Your task to perform on an android device: Check the settings for the Google Maps app Image 0: 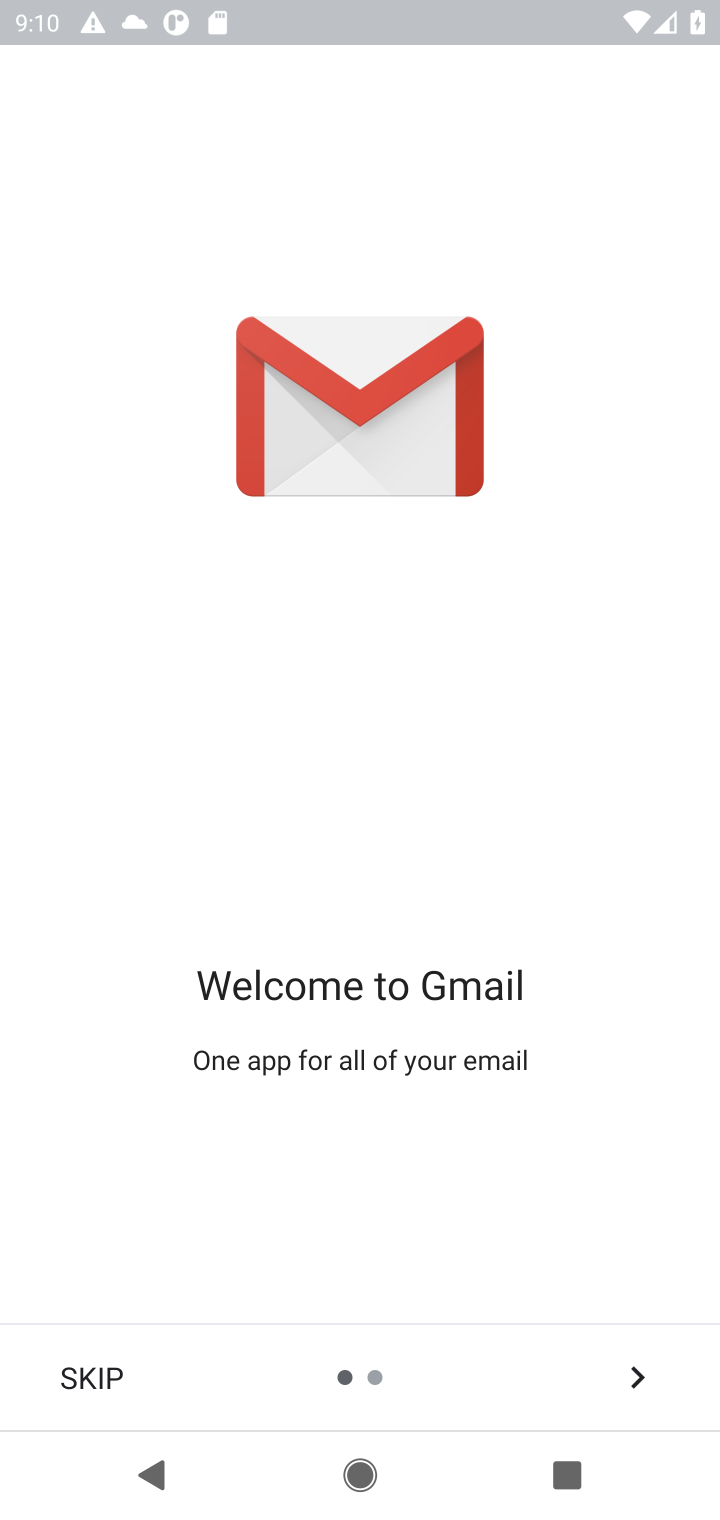
Step 0: press home button
Your task to perform on an android device: Check the settings for the Google Maps app Image 1: 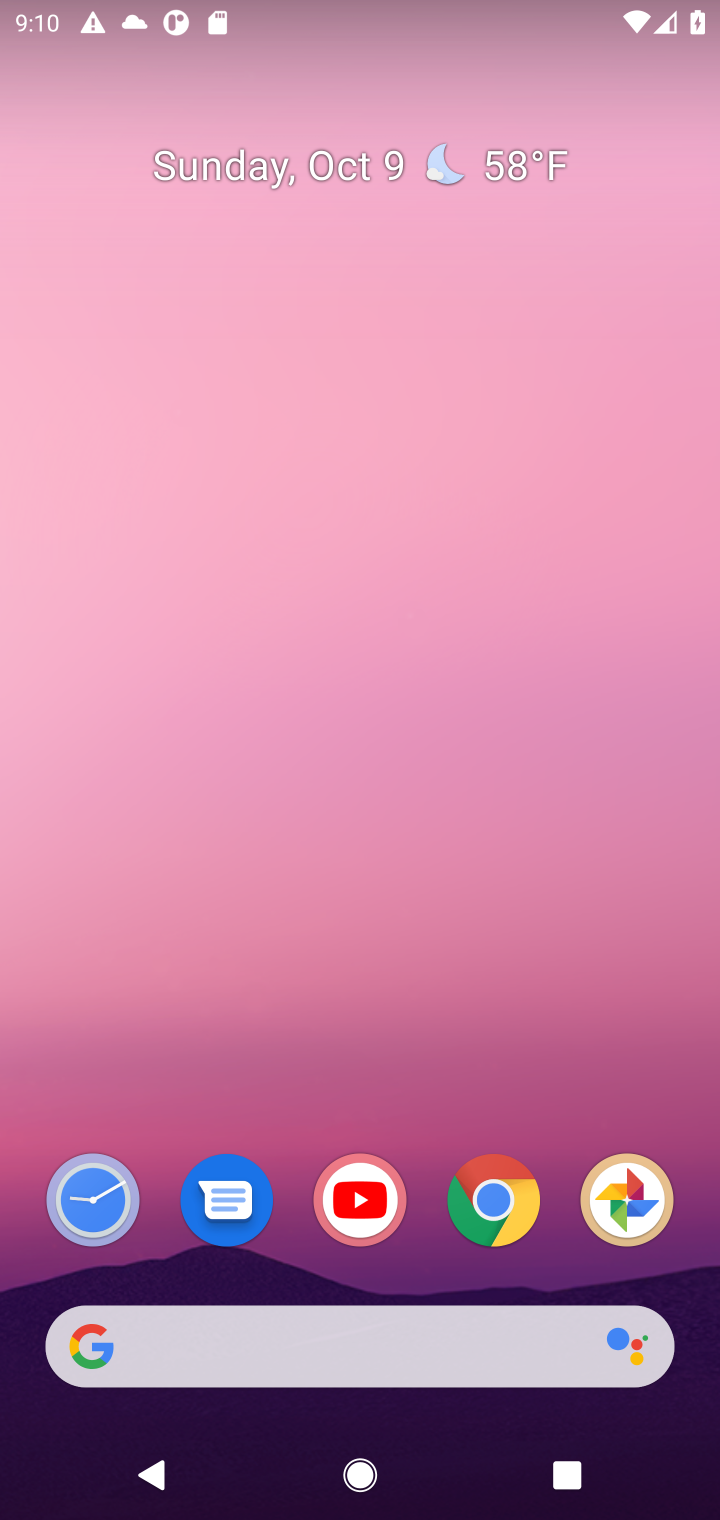
Step 1: drag from (428, 1089) to (495, 142)
Your task to perform on an android device: Check the settings for the Google Maps app Image 2: 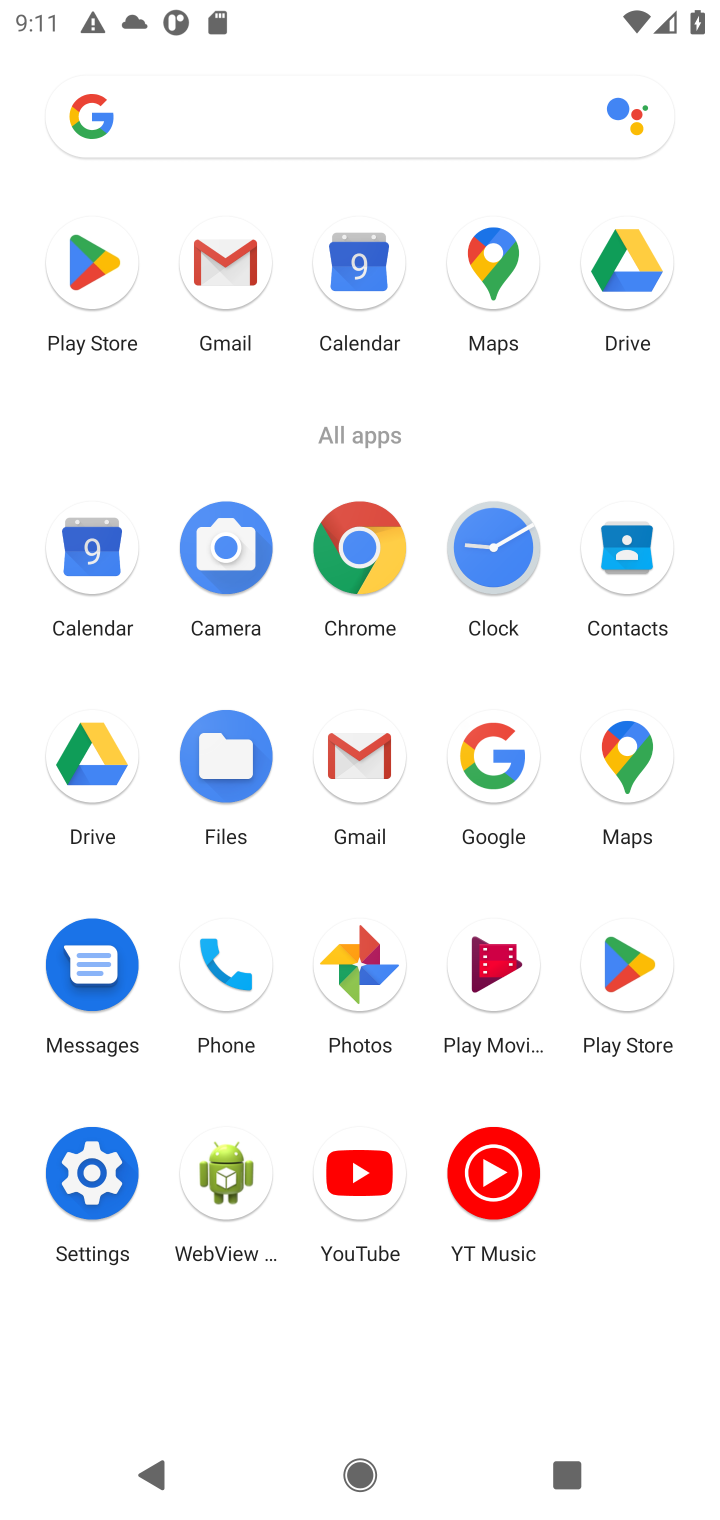
Step 2: click (88, 1167)
Your task to perform on an android device: Check the settings for the Google Maps app Image 3: 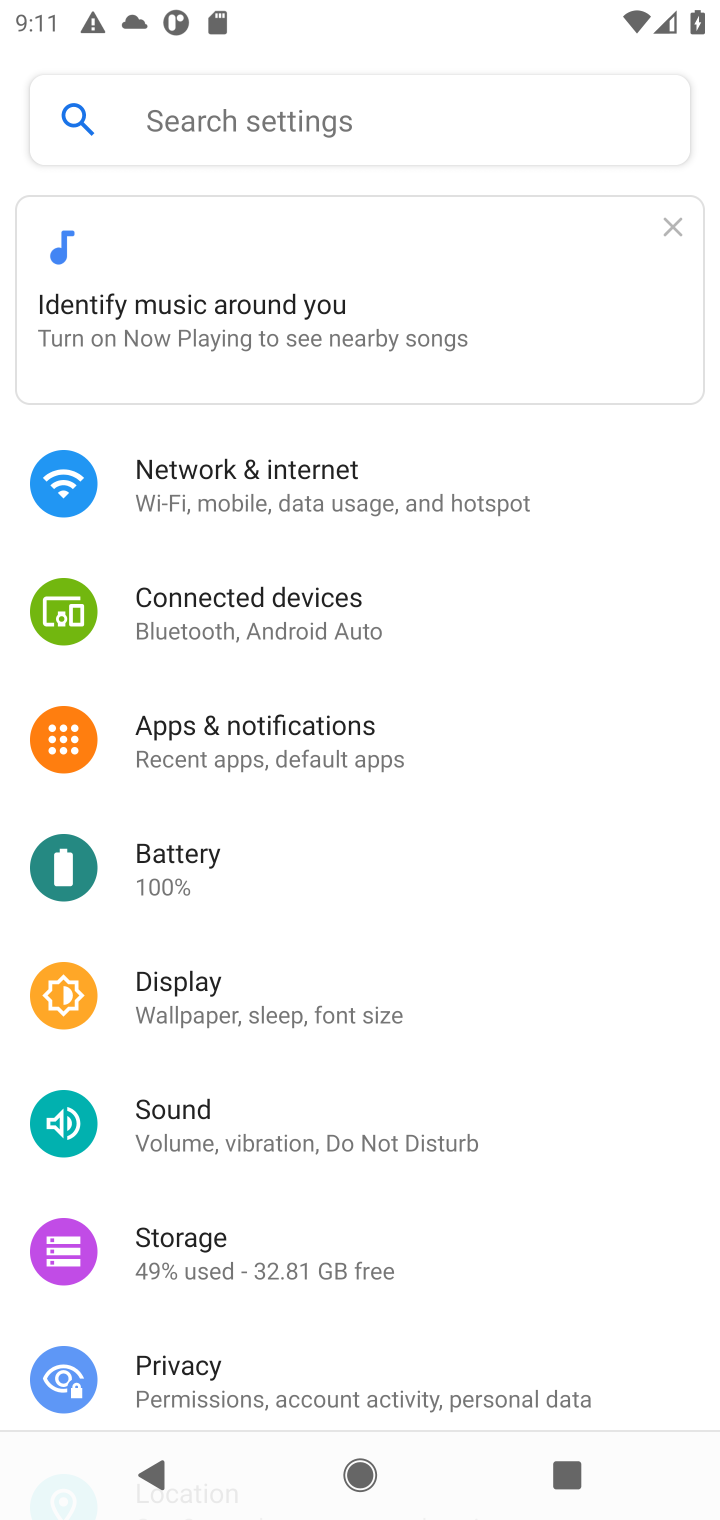
Step 3: press home button
Your task to perform on an android device: Check the settings for the Google Maps app Image 4: 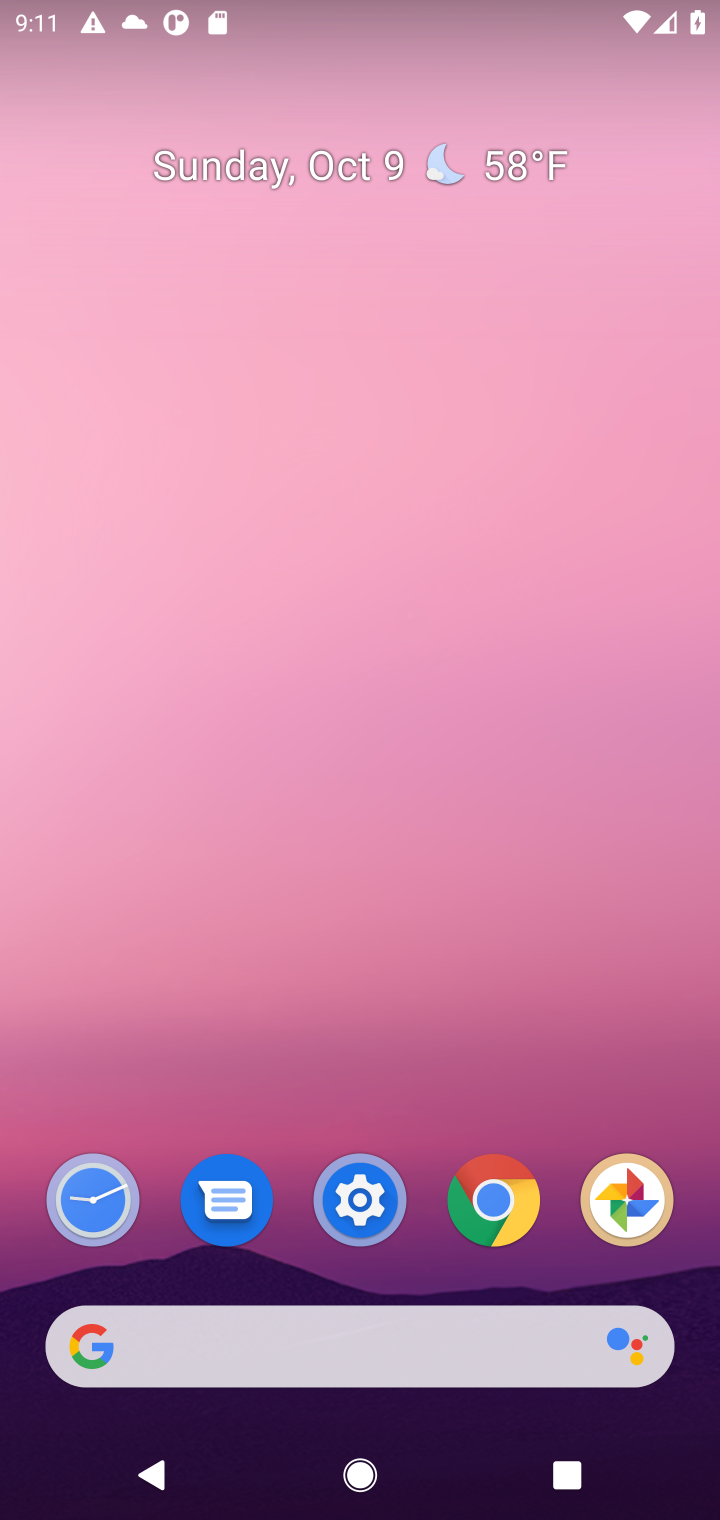
Step 4: drag from (511, 1096) to (503, 147)
Your task to perform on an android device: Check the settings for the Google Maps app Image 5: 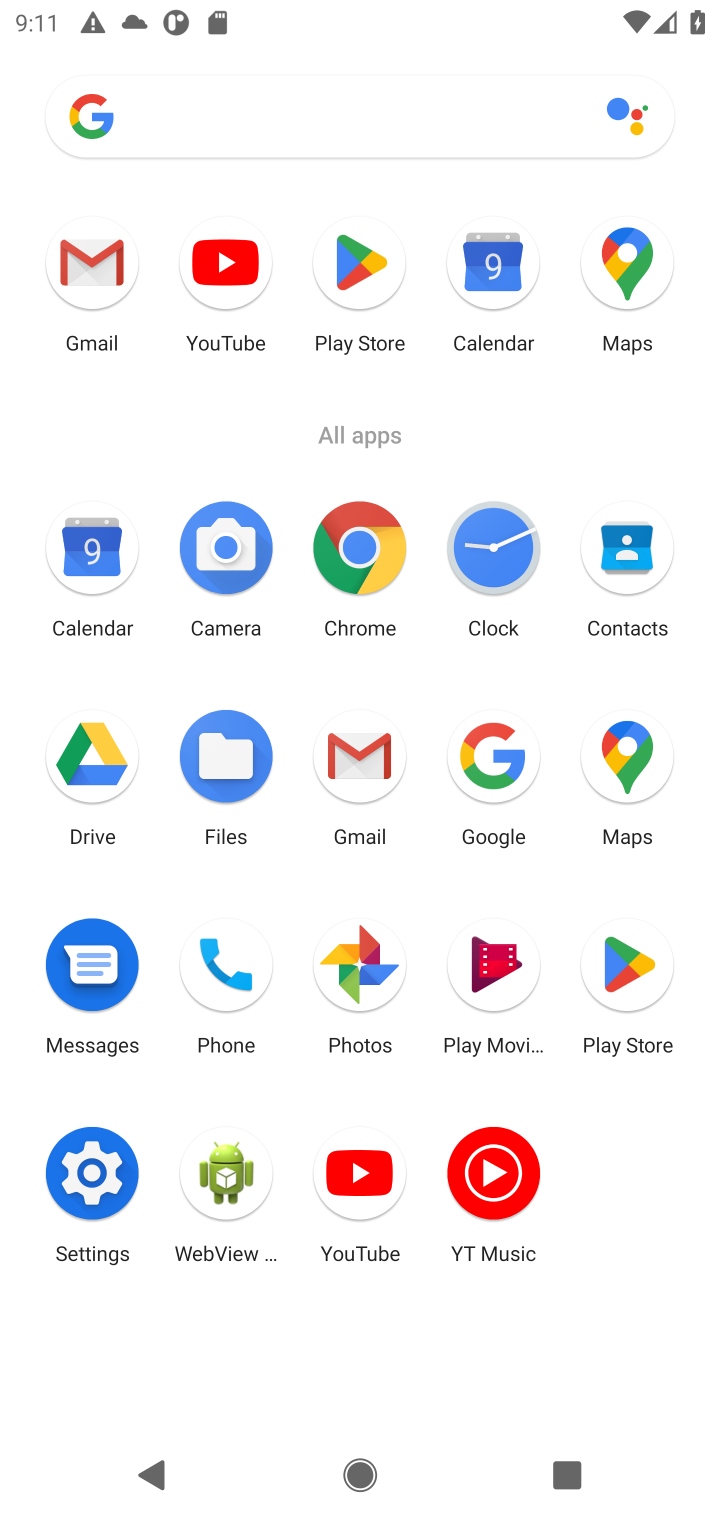
Step 5: click (629, 252)
Your task to perform on an android device: Check the settings for the Google Maps app Image 6: 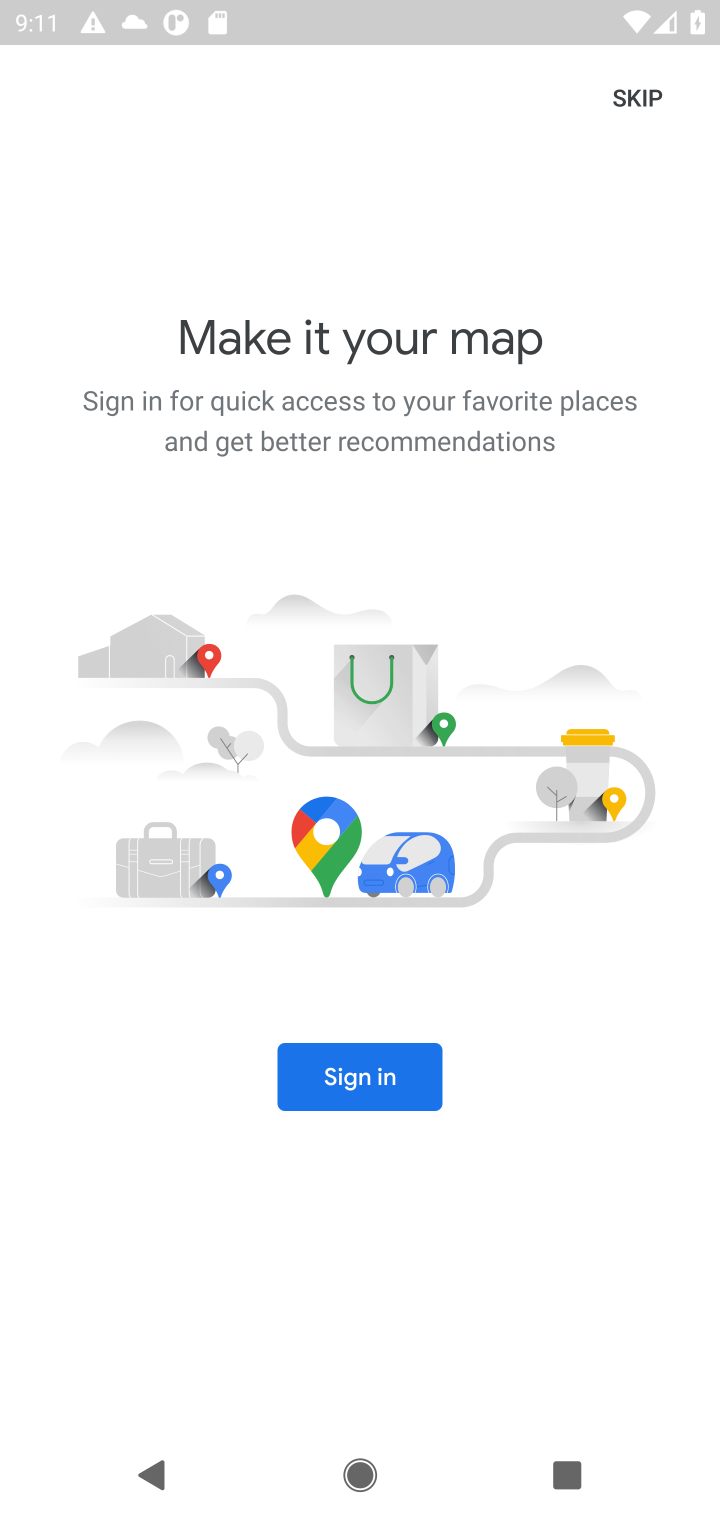
Step 6: click (638, 90)
Your task to perform on an android device: Check the settings for the Google Maps app Image 7: 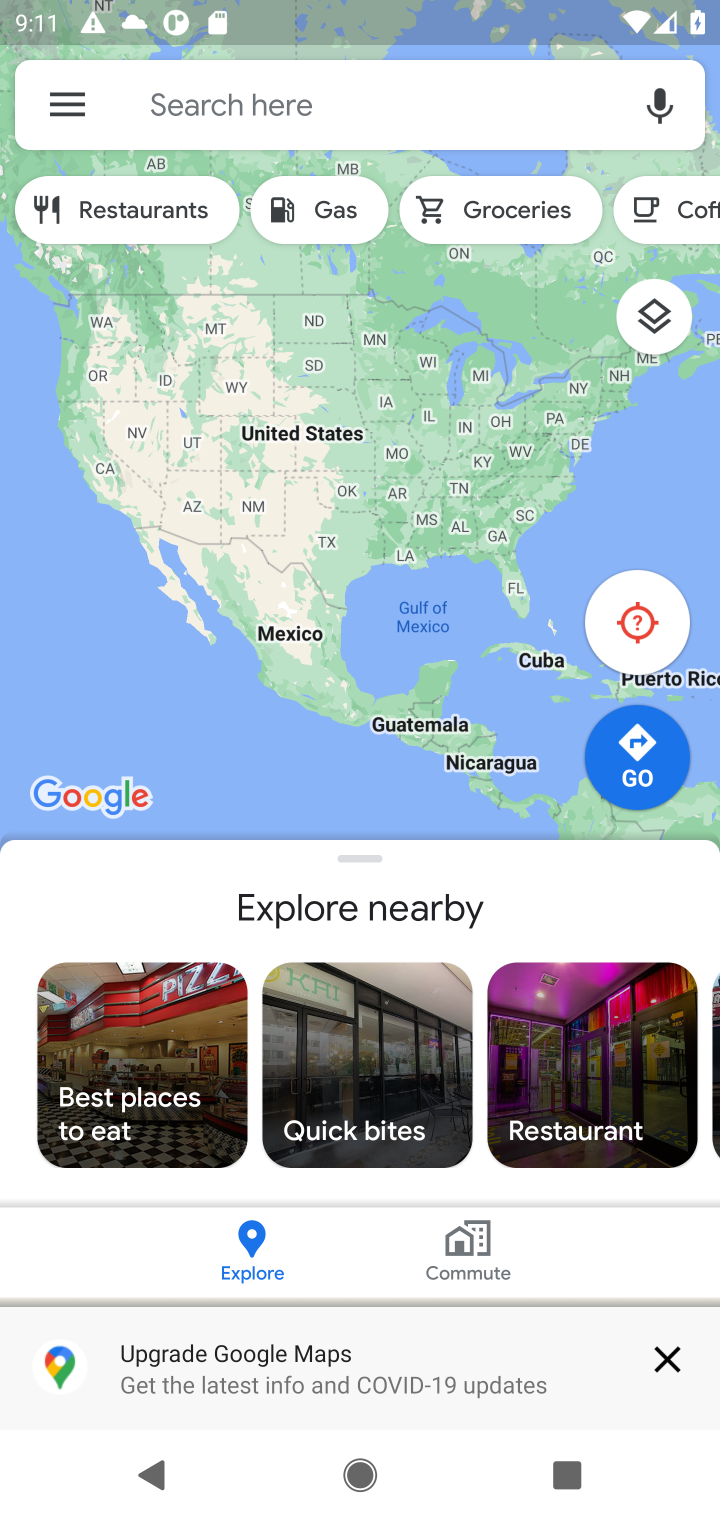
Step 7: click (70, 103)
Your task to perform on an android device: Check the settings for the Google Maps app Image 8: 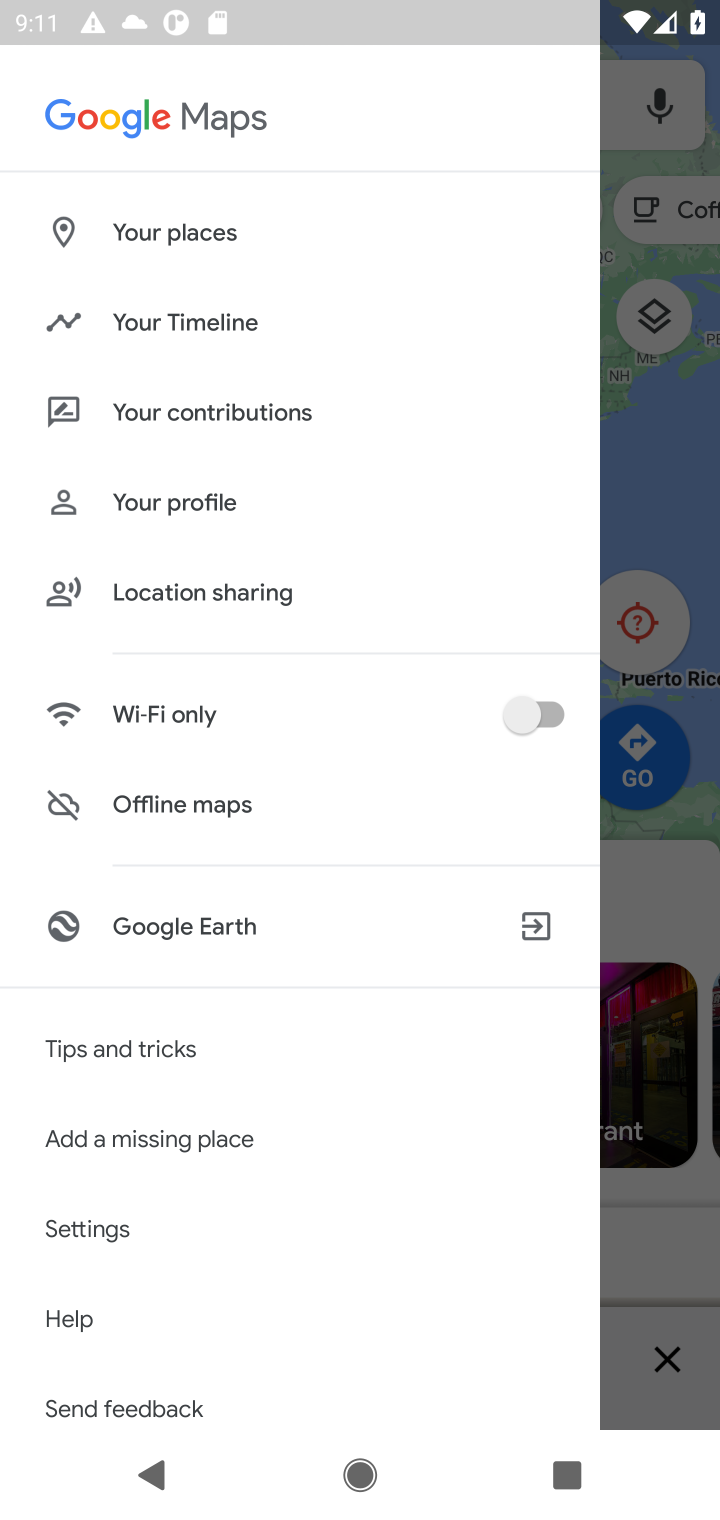
Step 8: click (89, 1234)
Your task to perform on an android device: Check the settings for the Google Maps app Image 9: 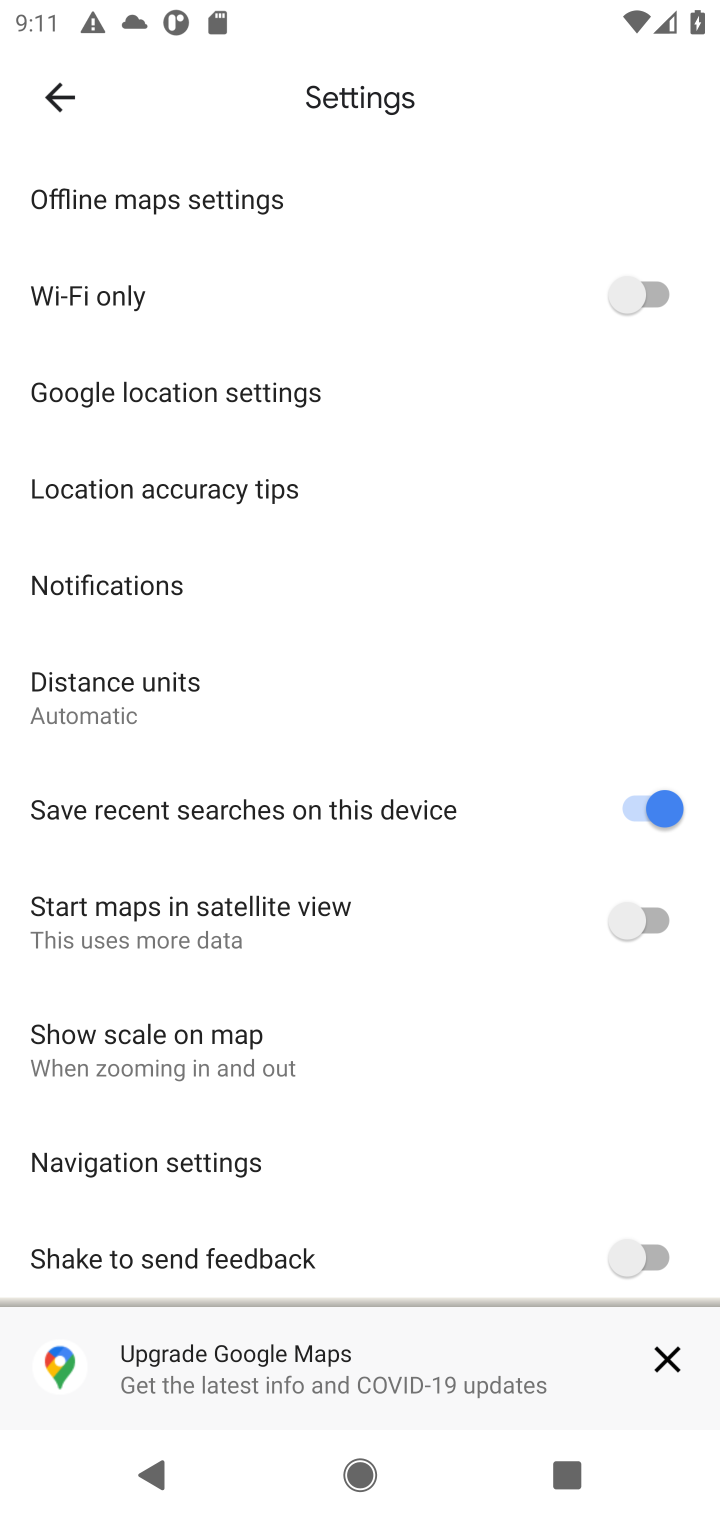
Step 9: task complete